Your task to perform on an android device: Go to Yahoo.com Image 0: 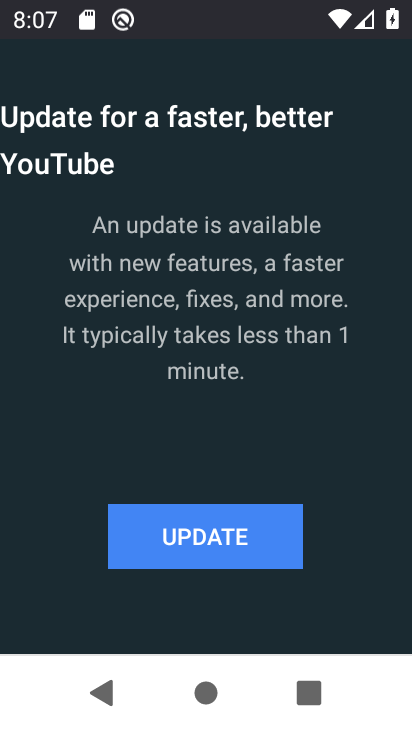
Step 0: press home button
Your task to perform on an android device: Go to Yahoo.com Image 1: 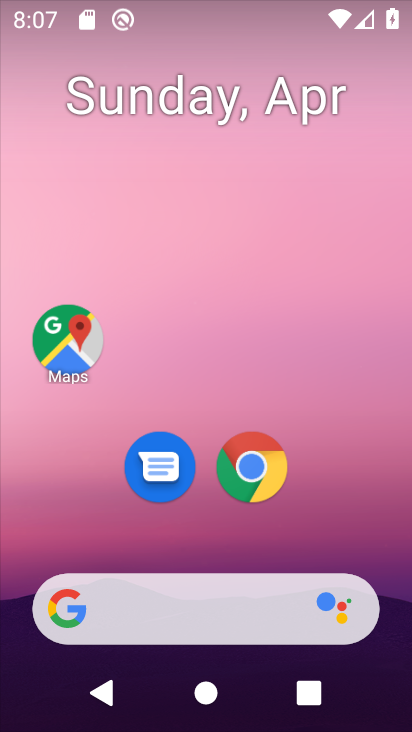
Step 1: click (249, 461)
Your task to perform on an android device: Go to Yahoo.com Image 2: 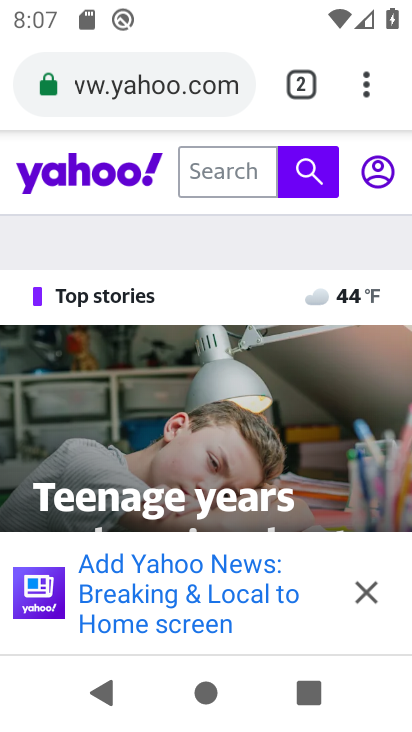
Step 2: task complete